Your task to perform on an android device: see sites visited before in the chrome app Image 0: 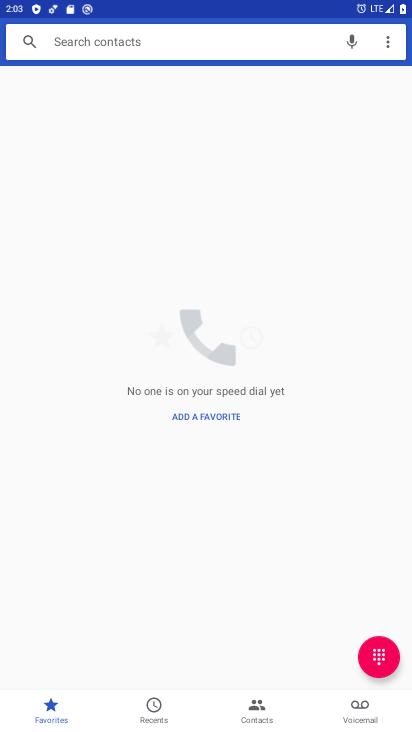
Step 0: press home button
Your task to perform on an android device: see sites visited before in the chrome app Image 1: 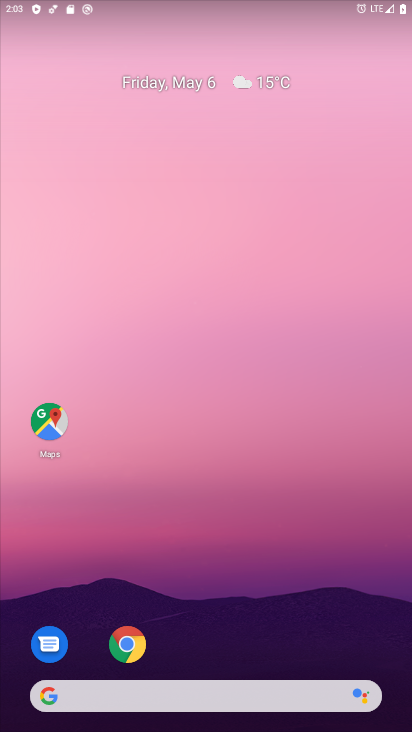
Step 1: drag from (273, 612) to (249, 204)
Your task to perform on an android device: see sites visited before in the chrome app Image 2: 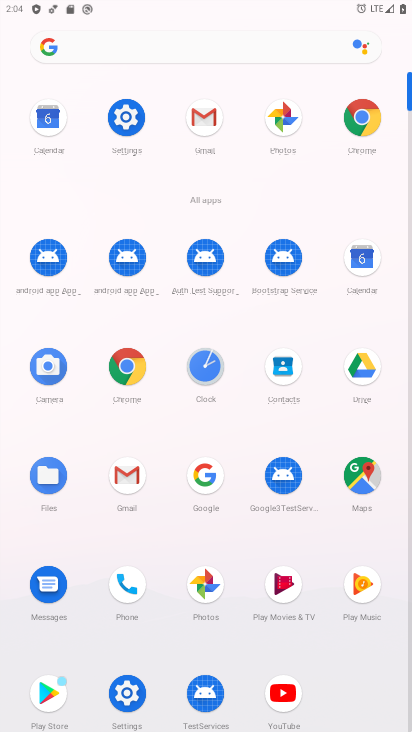
Step 2: click (362, 116)
Your task to perform on an android device: see sites visited before in the chrome app Image 3: 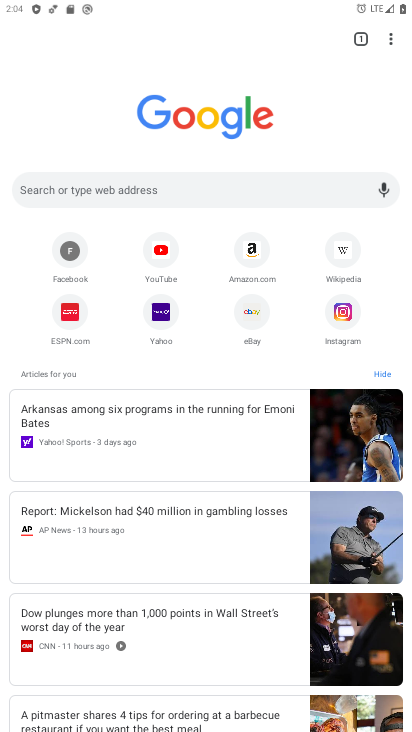
Step 3: click (385, 61)
Your task to perform on an android device: see sites visited before in the chrome app Image 4: 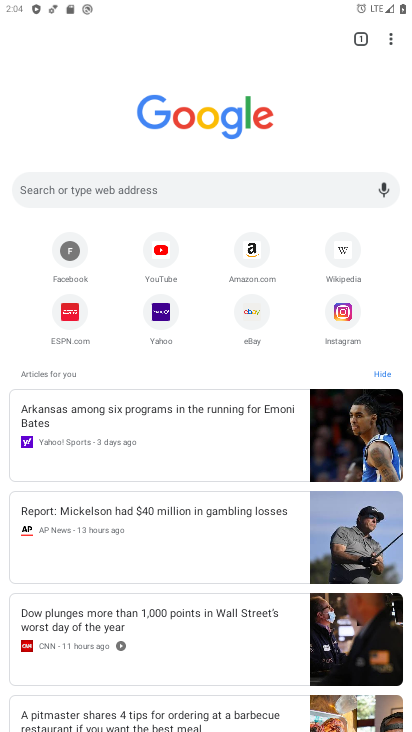
Step 4: task complete